Your task to perform on an android device: View the shopping cart on costco. Add macbook pro 15 inch to the cart on costco, then select checkout. Image 0: 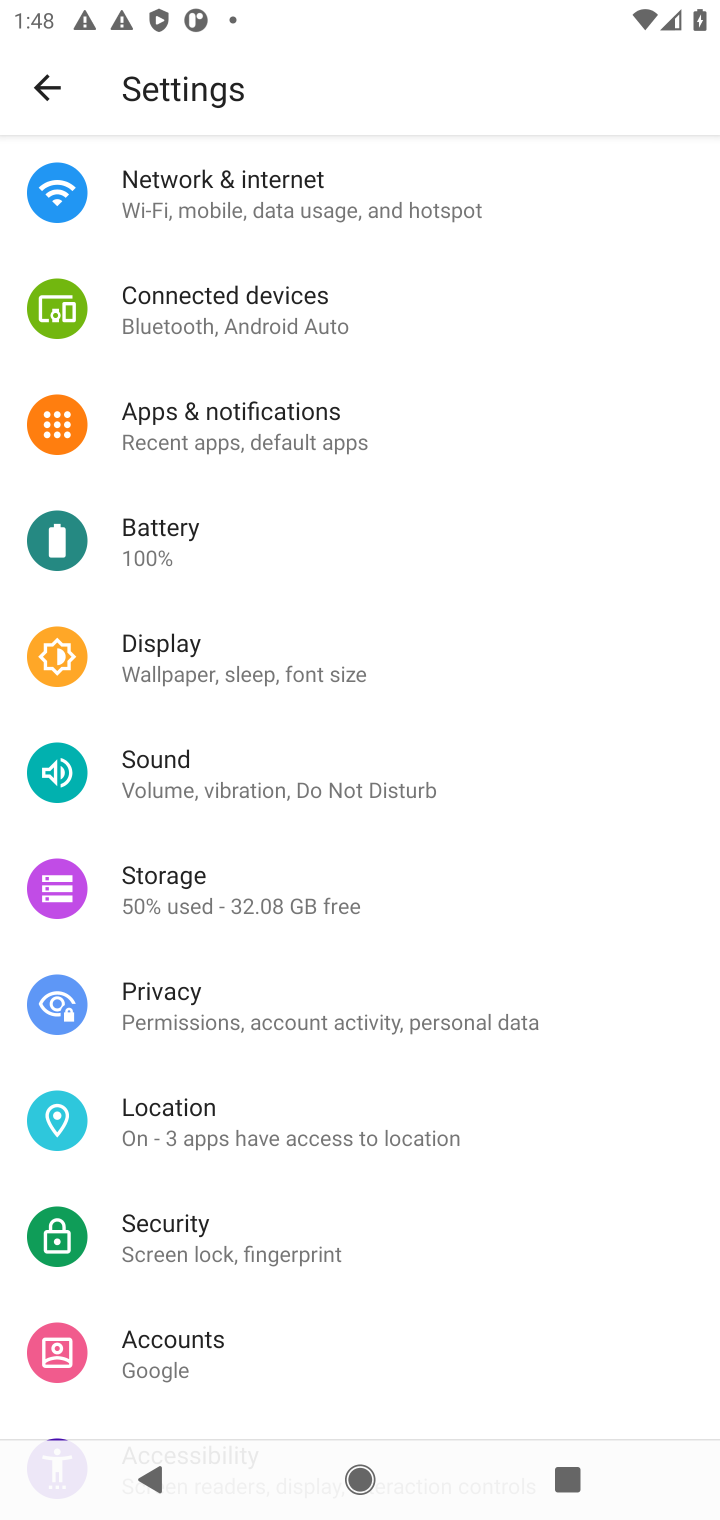
Step 0: press home button
Your task to perform on an android device: View the shopping cart on costco. Add macbook pro 15 inch to the cart on costco, then select checkout. Image 1: 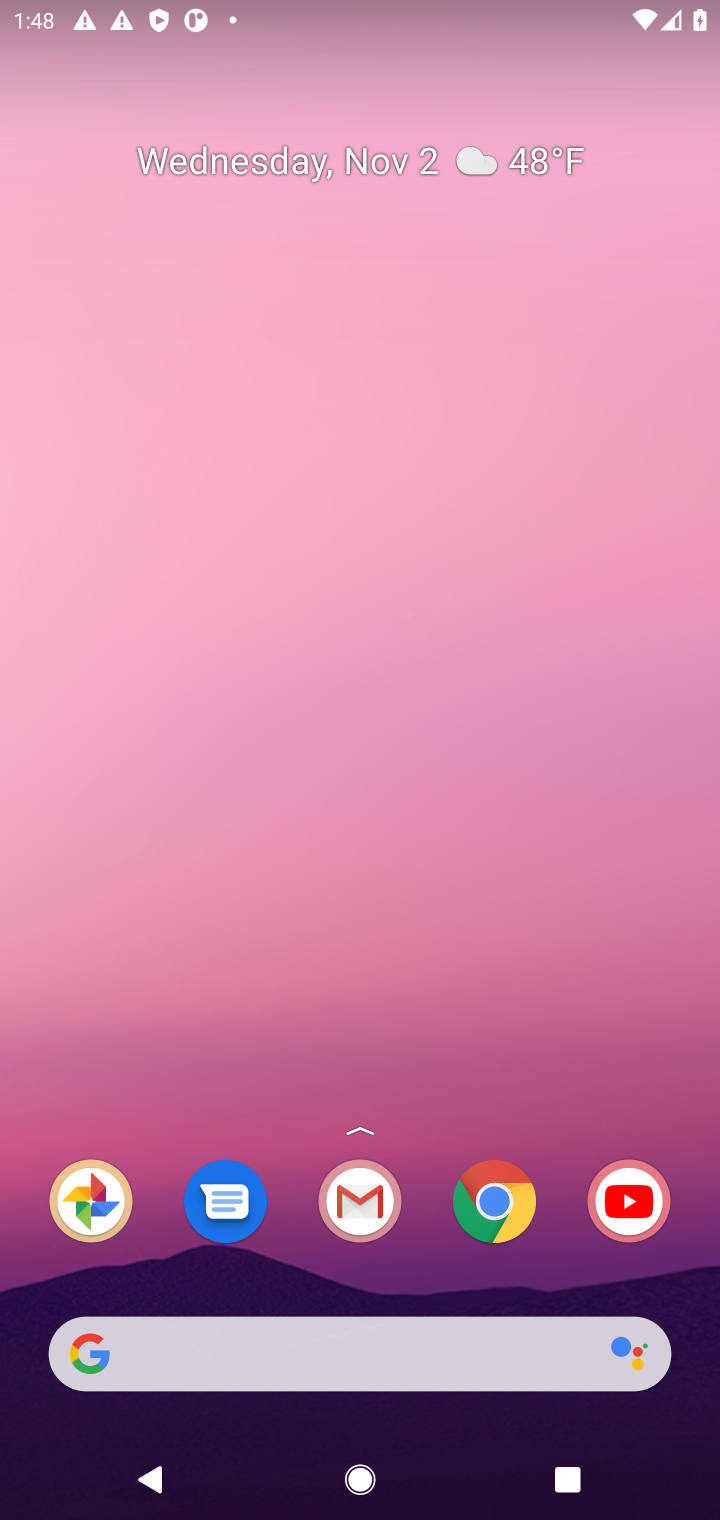
Step 1: click (512, 1202)
Your task to perform on an android device: View the shopping cart on costco. Add macbook pro 15 inch to the cart on costco, then select checkout. Image 2: 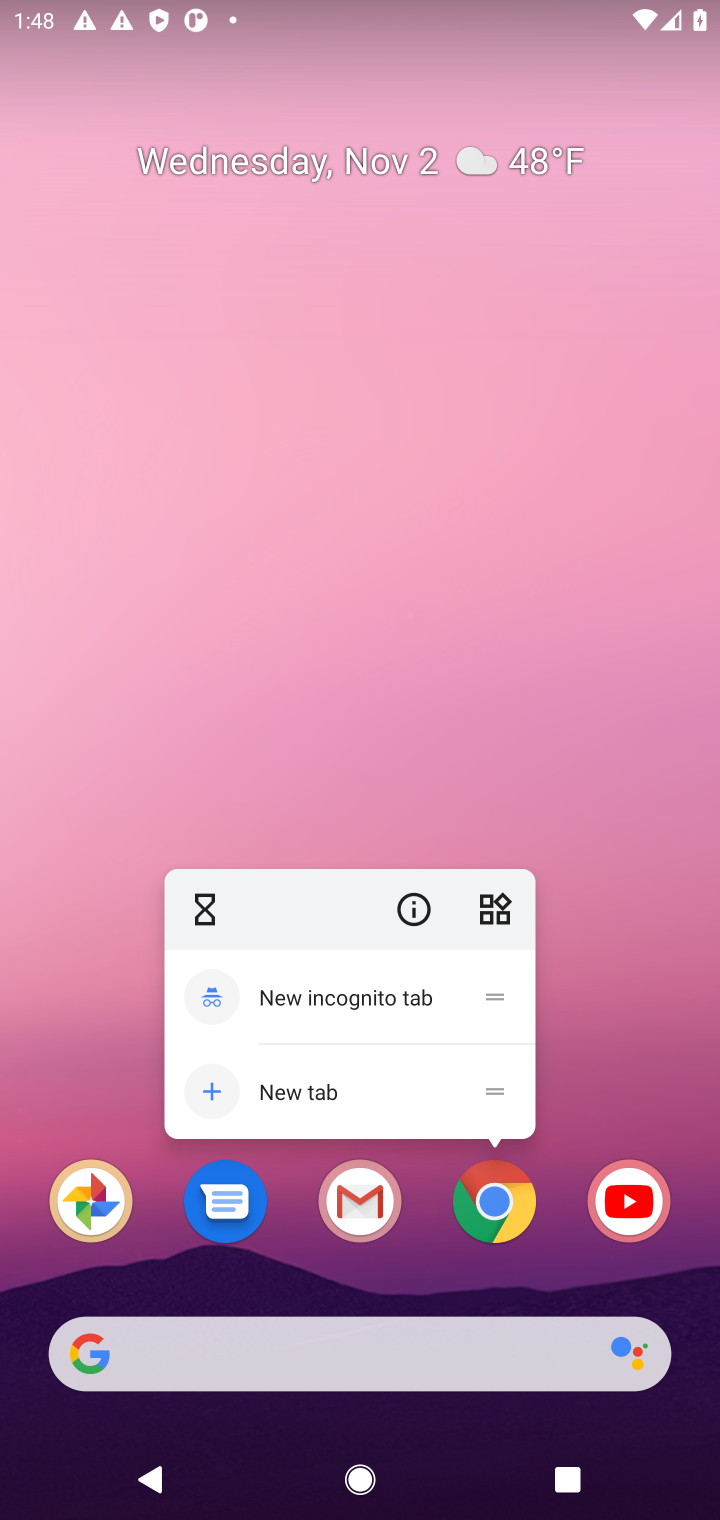
Step 2: click (512, 1202)
Your task to perform on an android device: View the shopping cart on costco. Add macbook pro 15 inch to the cart on costco, then select checkout. Image 3: 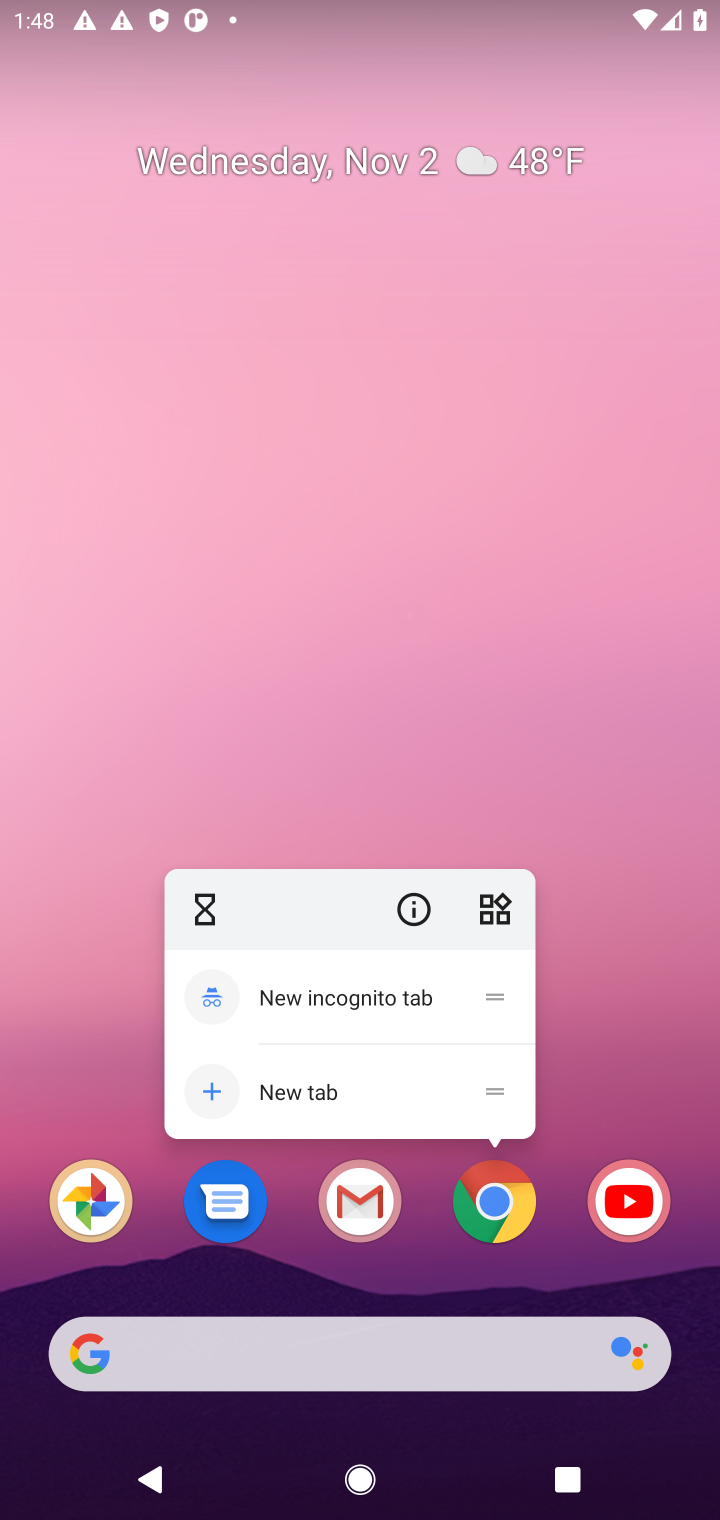
Step 3: click (512, 1202)
Your task to perform on an android device: View the shopping cart on costco. Add macbook pro 15 inch to the cart on costco, then select checkout. Image 4: 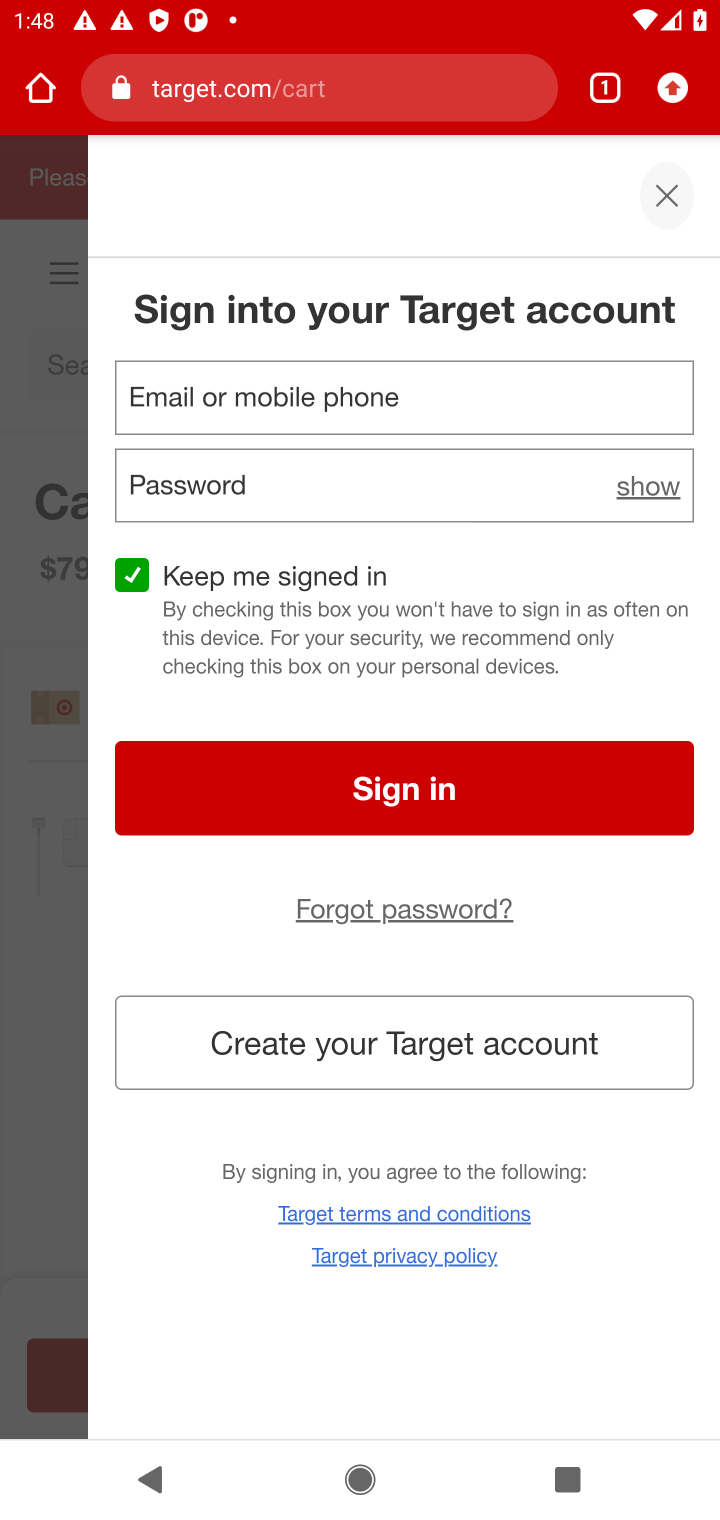
Step 4: click (447, 87)
Your task to perform on an android device: View the shopping cart on costco. Add macbook pro 15 inch to the cart on costco, then select checkout. Image 5: 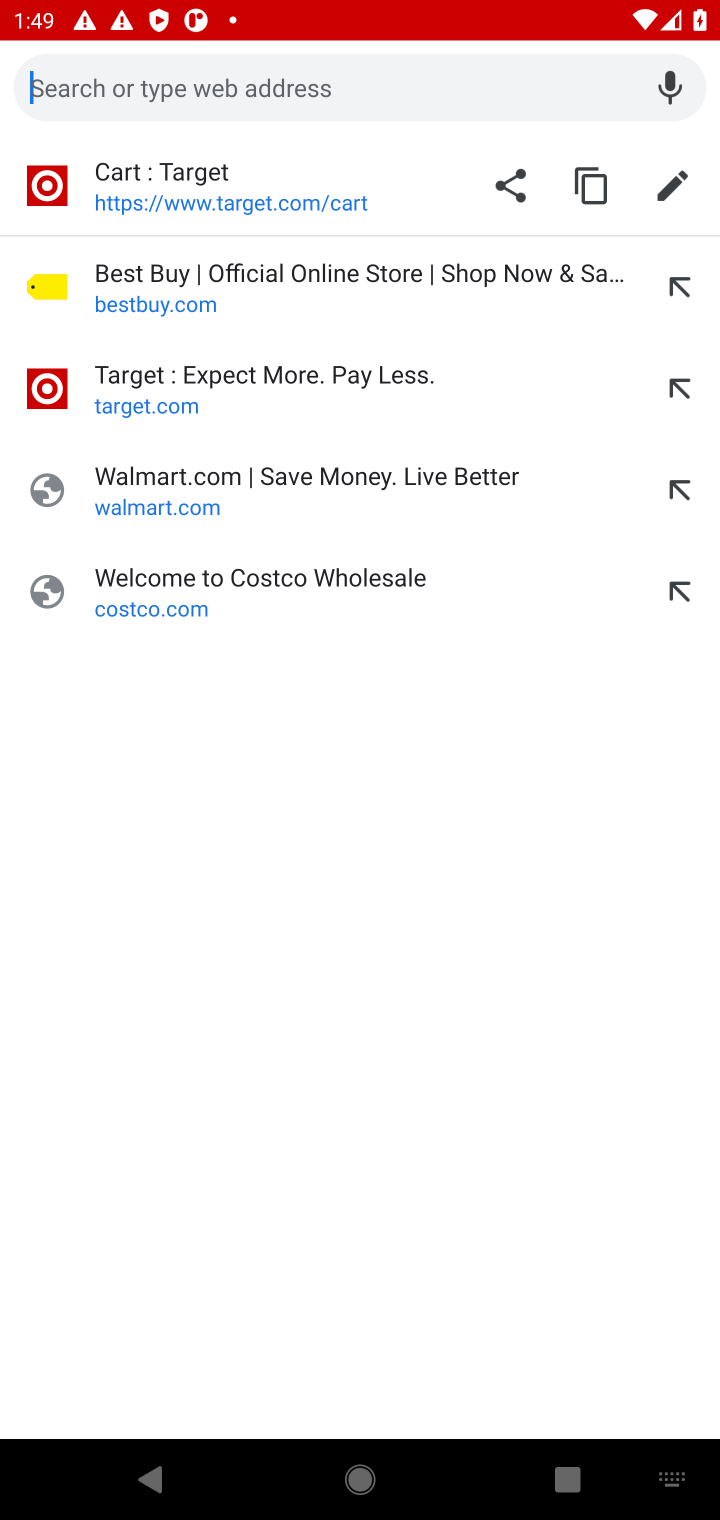
Step 5: type "costco"
Your task to perform on an android device: View the shopping cart on costco. Add macbook pro 15 inch to the cart on costco, then select checkout. Image 6: 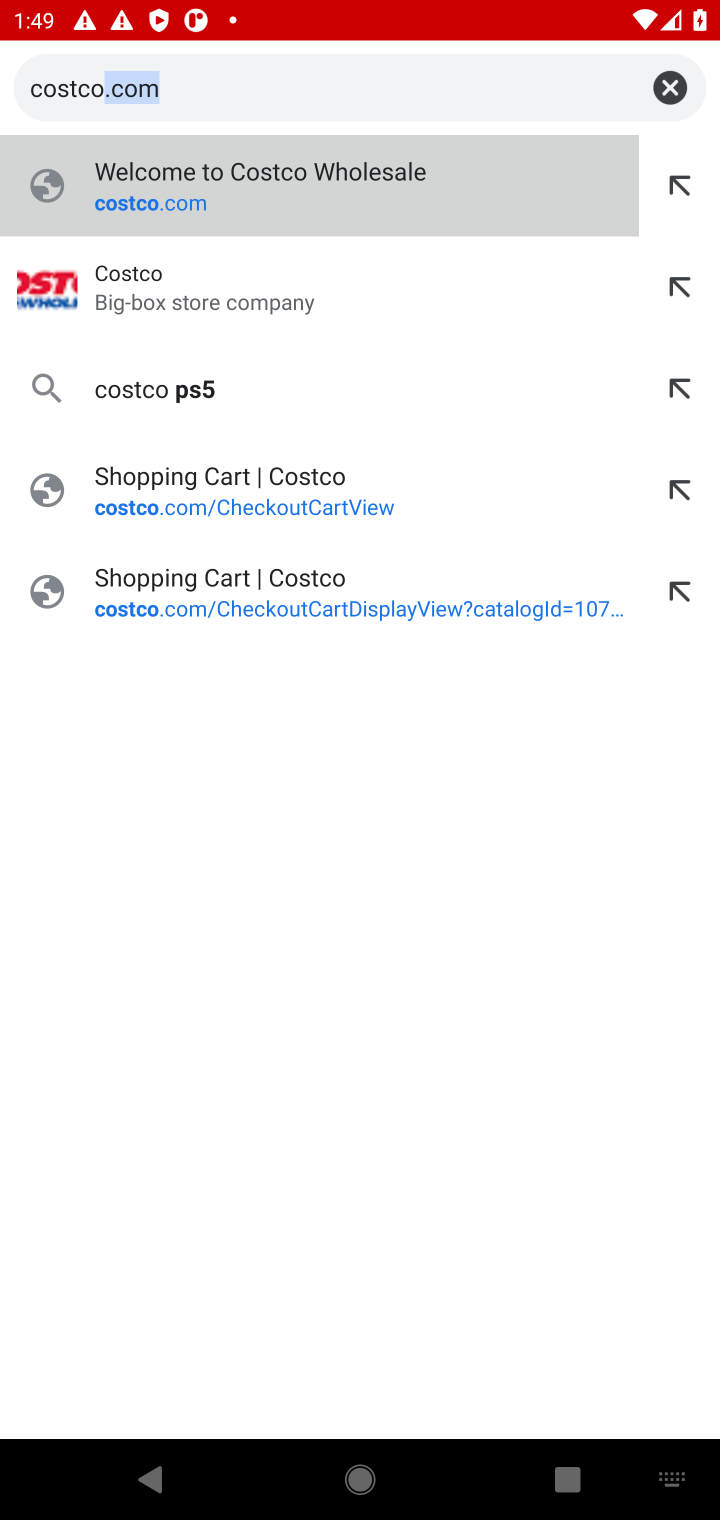
Step 6: click (385, 85)
Your task to perform on an android device: View the shopping cart on costco. Add macbook pro 15 inch to the cart on costco, then select checkout. Image 7: 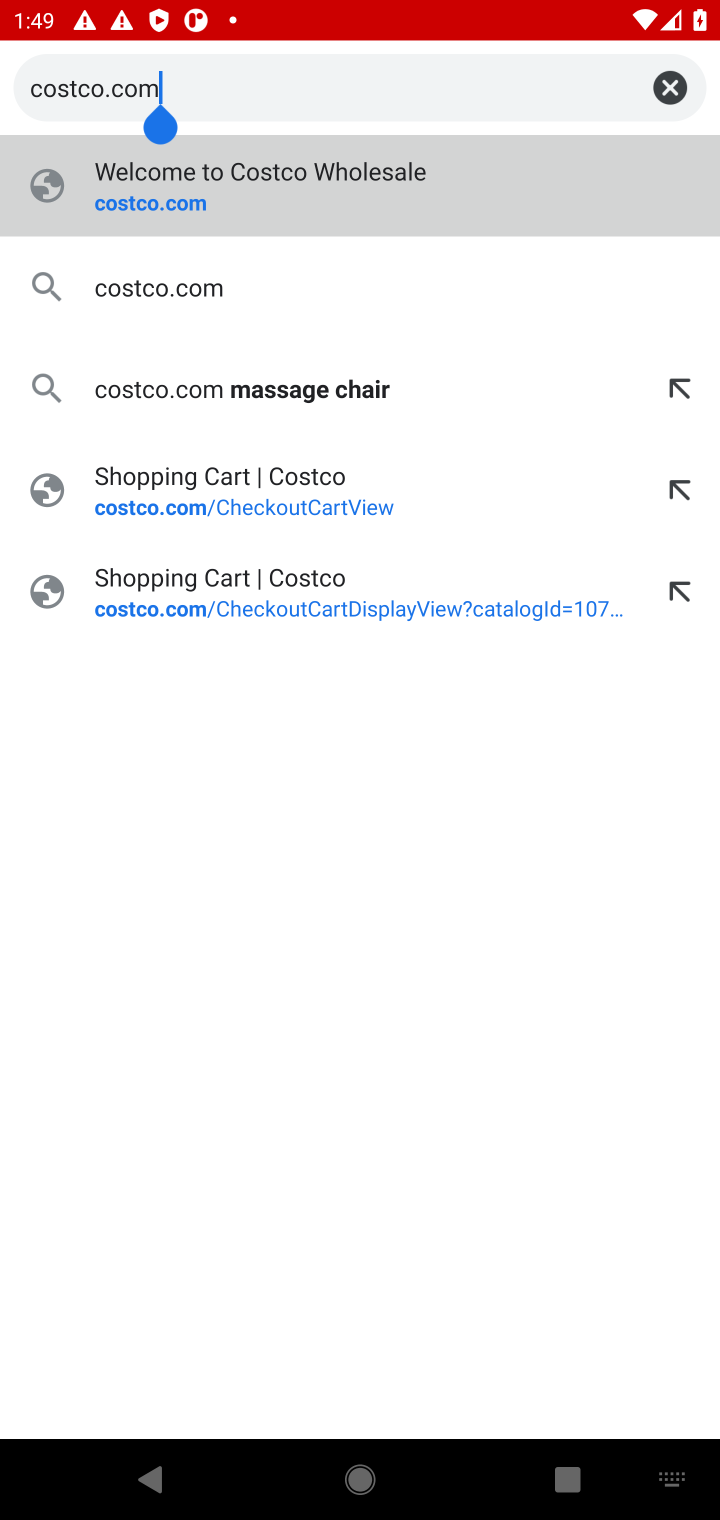
Step 7: click (189, 282)
Your task to perform on an android device: View the shopping cart on costco. Add macbook pro 15 inch to the cart on costco, then select checkout. Image 8: 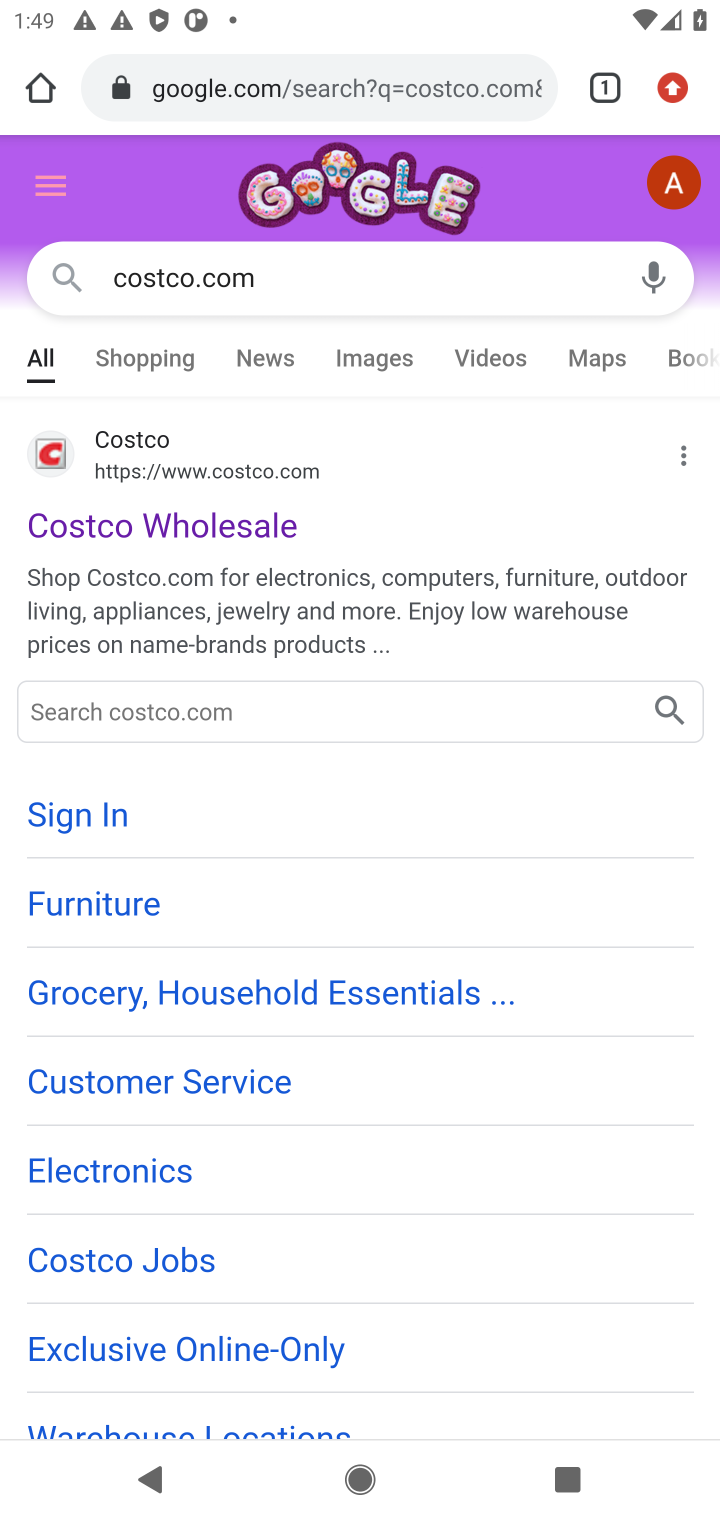
Step 8: click (207, 459)
Your task to perform on an android device: View the shopping cart on costco. Add macbook pro 15 inch to the cart on costco, then select checkout. Image 9: 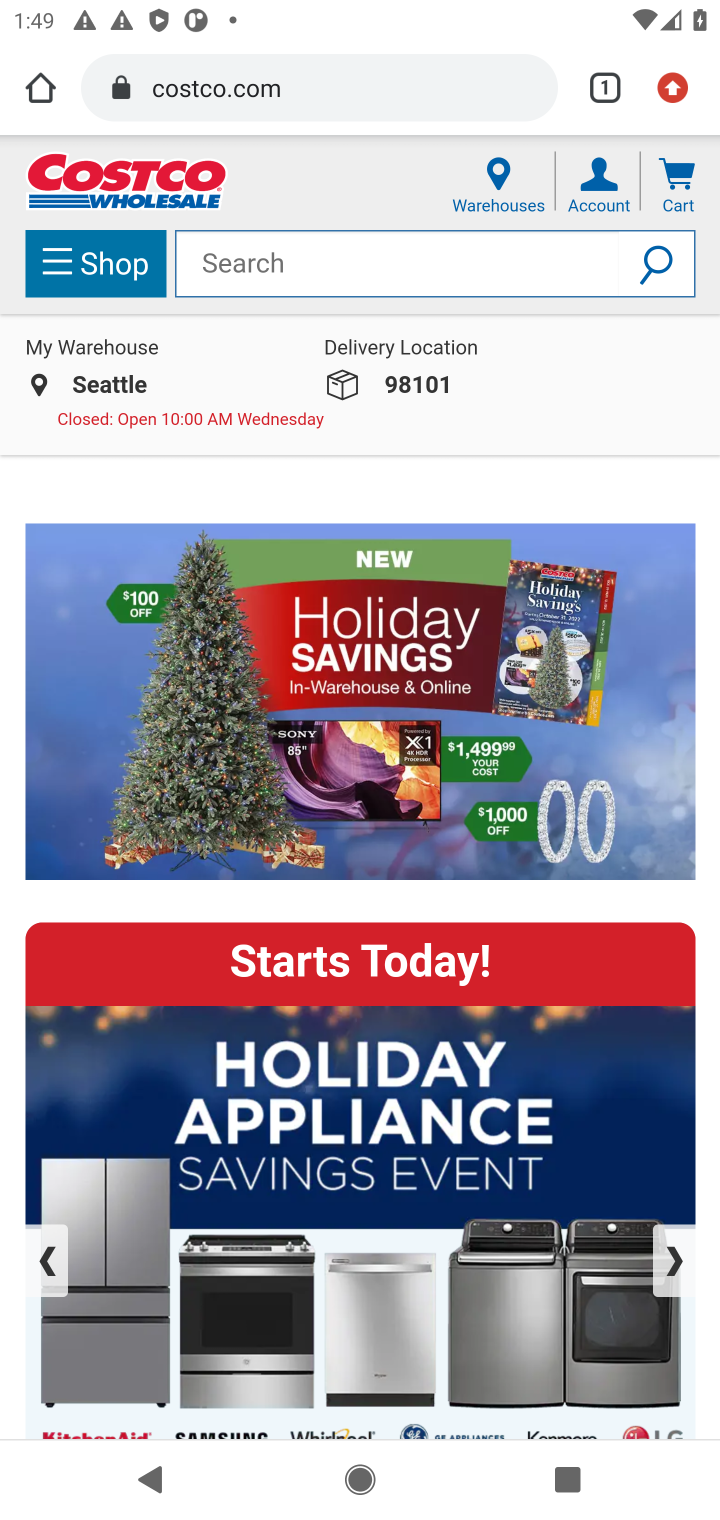
Step 9: click (335, 264)
Your task to perform on an android device: View the shopping cart on costco. Add macbook pro 15 inch to the cart on costco, then select checkout. Image 10: 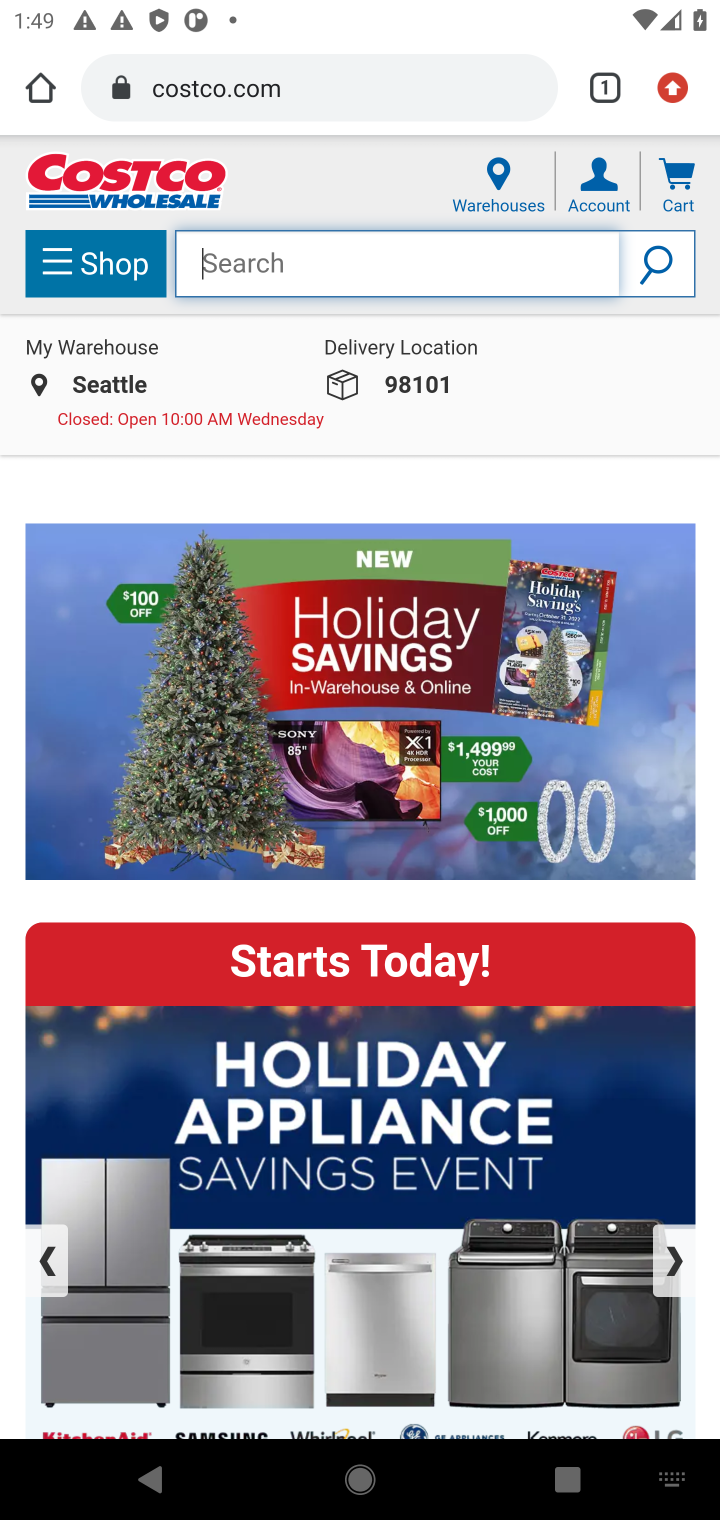
Step 10: type "macbook pro 15"
Your task to perform on an android device: View the shopping cart on costco. Add macbook pro 15 inch to the cart on costco, then select checkout. Image 11: 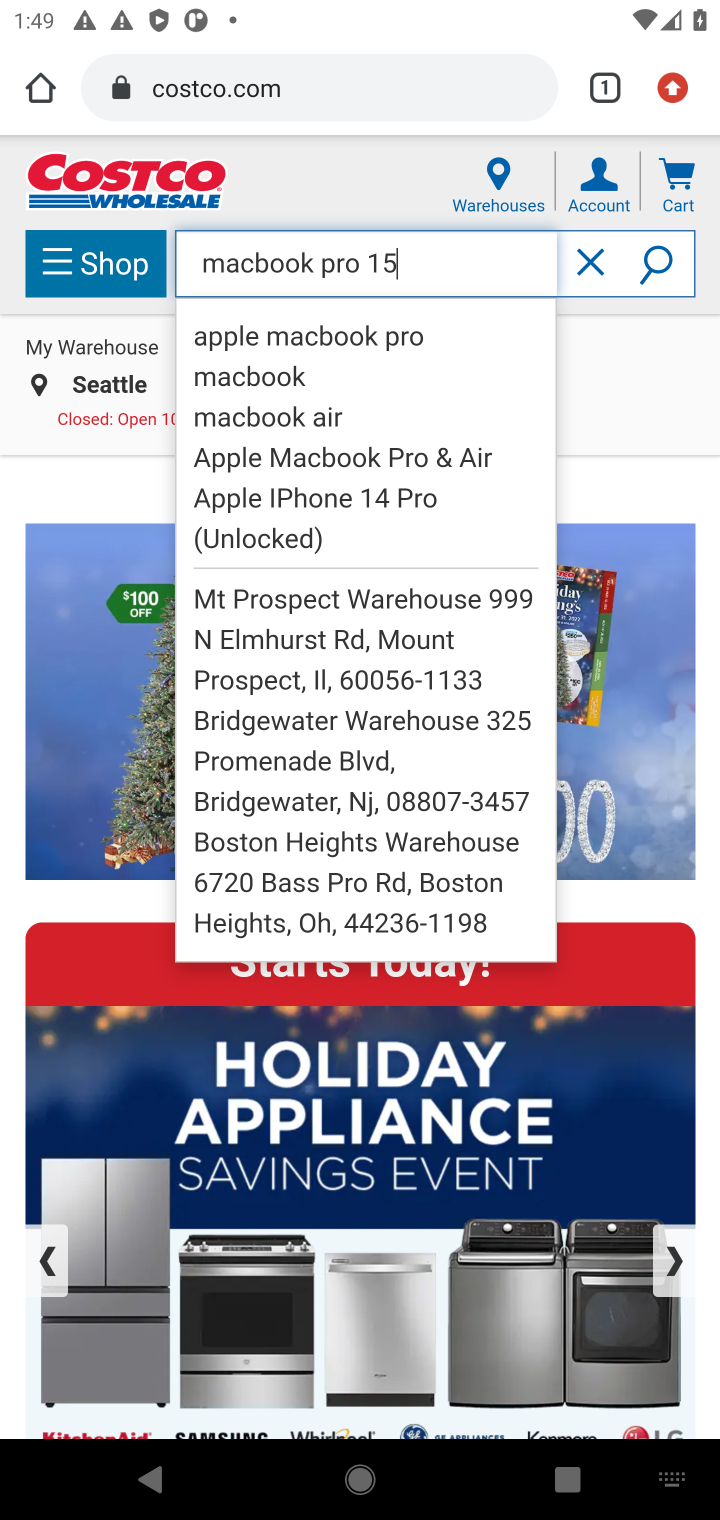
Step 11: click (626, 352)
Your task to perform on an android device: View the shopping cart on costco. Add macbook pro 15 inch to the cart on costco, then select checkout. Image 12: 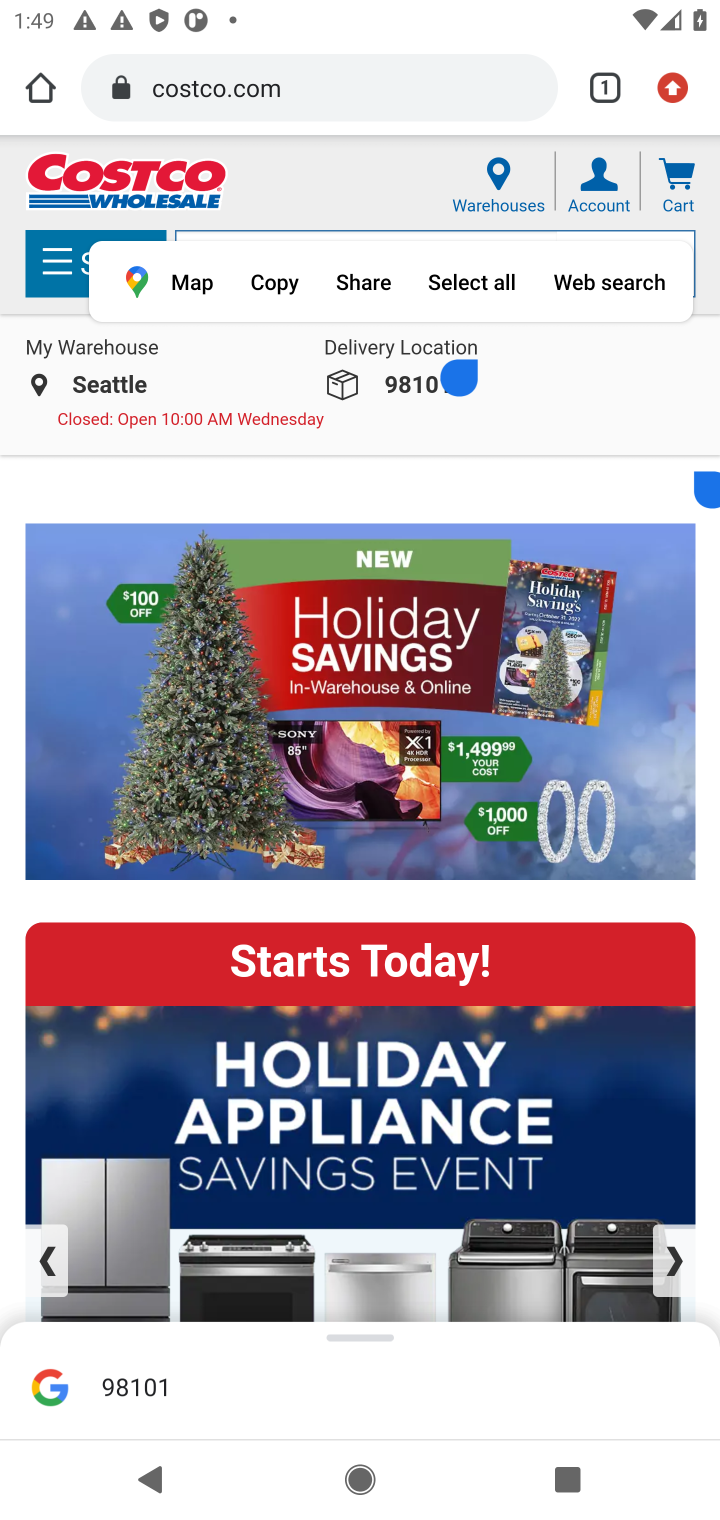
Step 12: click (585, 411)
Your task to perform on an android device: View the shopping cart on costco. Add macbook pro 15 inch to the cart on costco, then select checkout. Image 13: 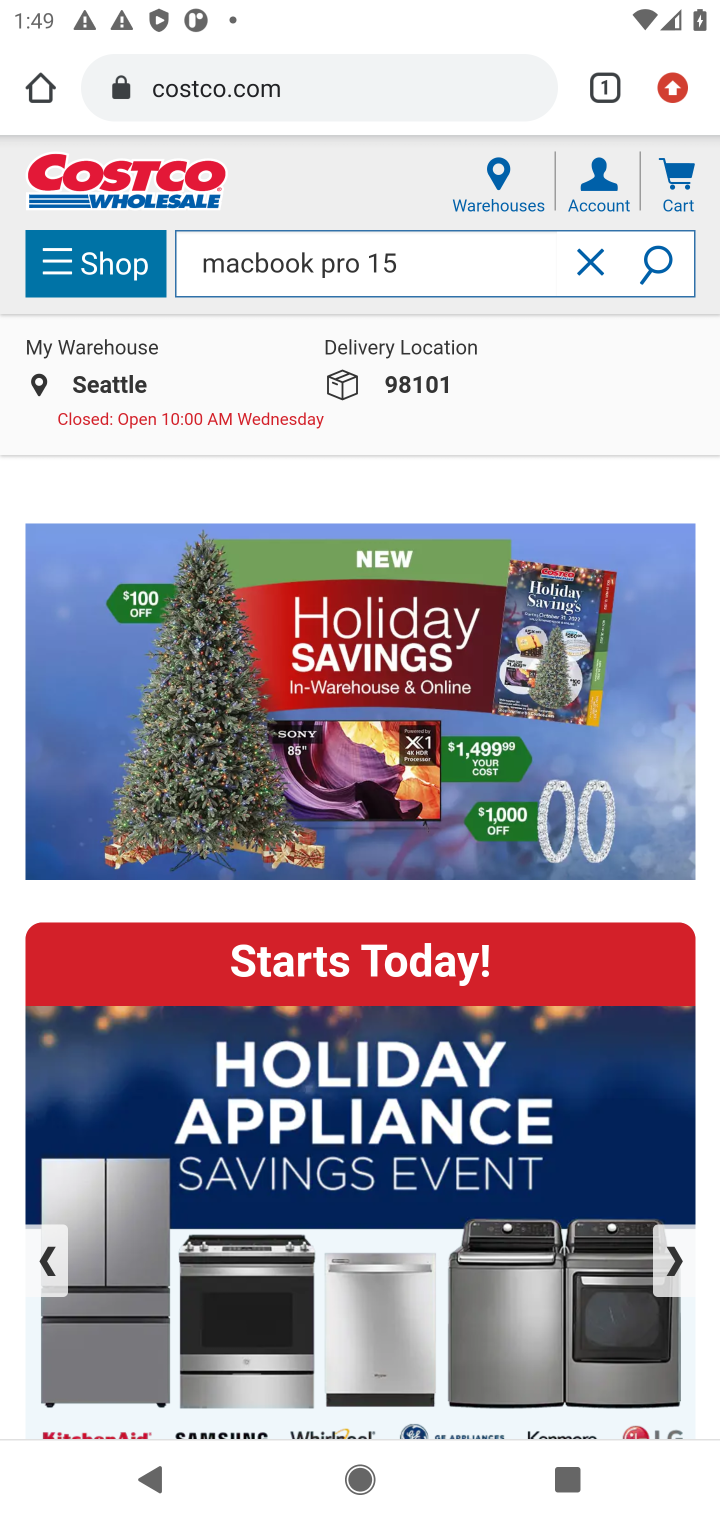
Step 13: click (481, 267)
Your task to perform on an android device: View the shopping cart on costco. Add macbook pro 15 inch to the cart on costco, then select checkout. Image 14: 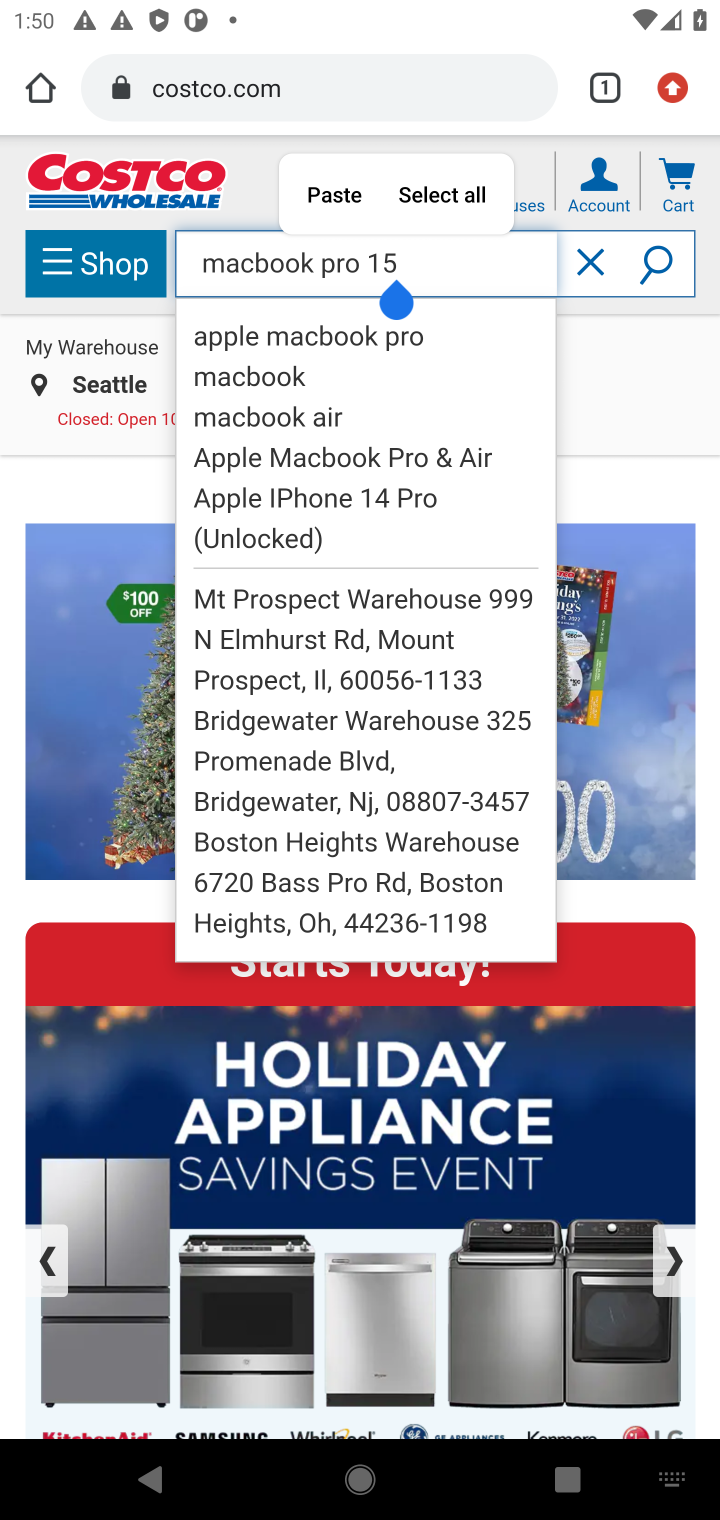
Step 14: task complete